Your task to perform on an android device: delete a single message in the gmail app Image 0: 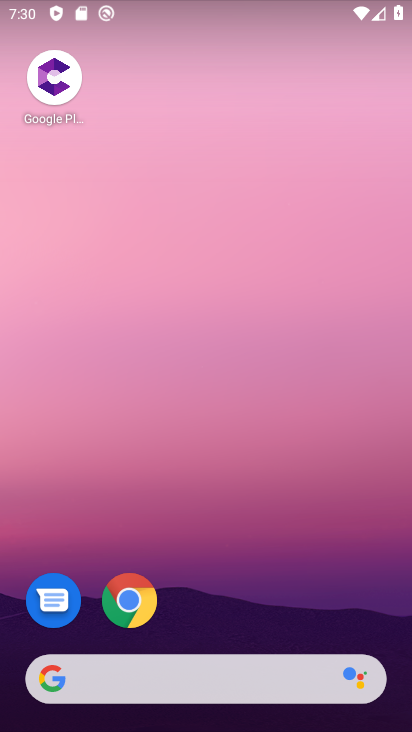
Step 0: drag from (363, 614) to (351, 164)
Your task to perform on an android device: delete a single message in the gmail app Image 1: 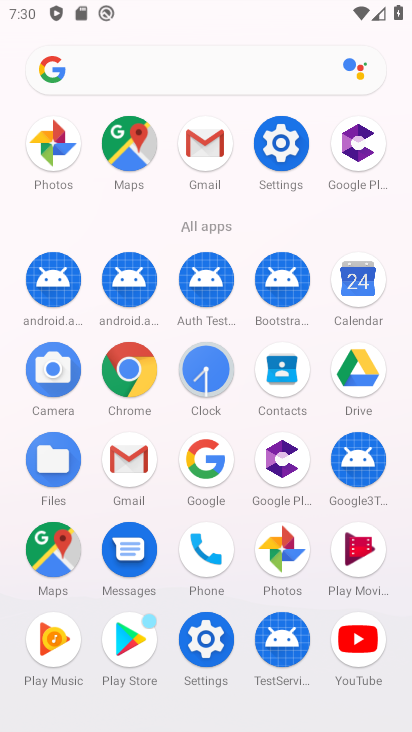
Step 1: click (137, 473)
Your task to perform on an android device: delete a single message in the gmail app Image 2: 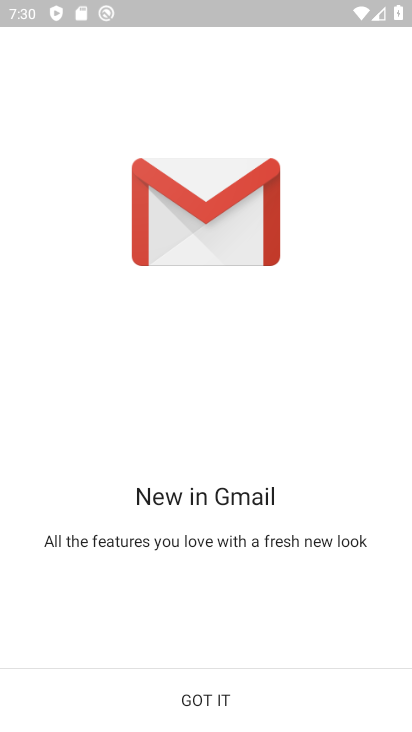
Step 2: click (243, 694)
Your task to perform on an android device: delete a single message in the gmail app Image 3: 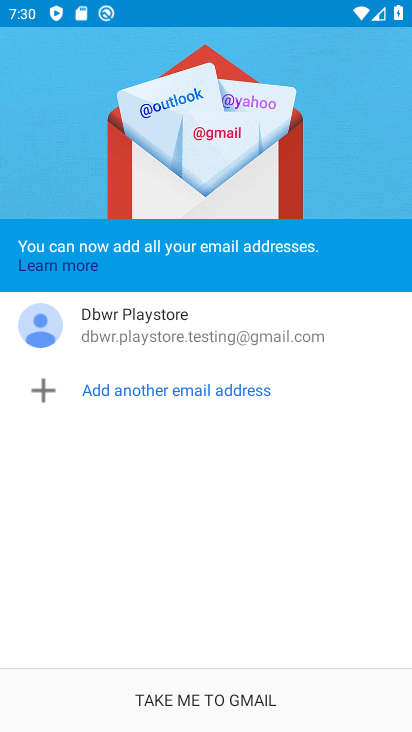
Step 3: click (245, 694)
Your task to perform on an android device: delete a single message in the gmail app Image 4: 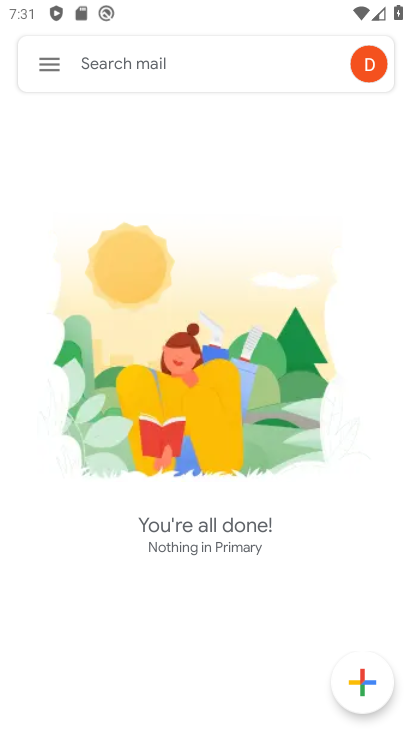
Step 4: task complete